Your task to perform on an android device: Open display settings Image 0: 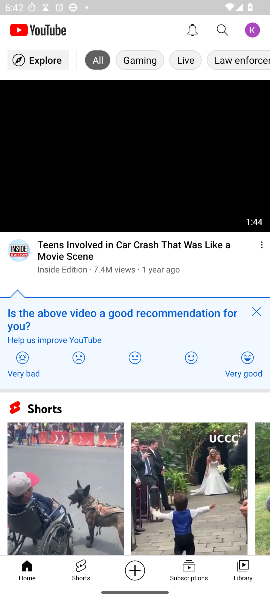
Step 0: press home button
Your task to perform on an android device: Open display settings Image 1: 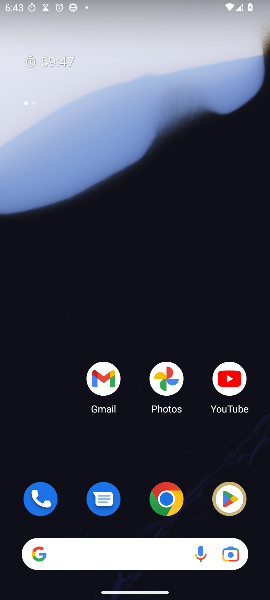
Step 1: drag from (79, 492) to (96, 64)
Your task to perform on an android device: Open display settings Image 2: 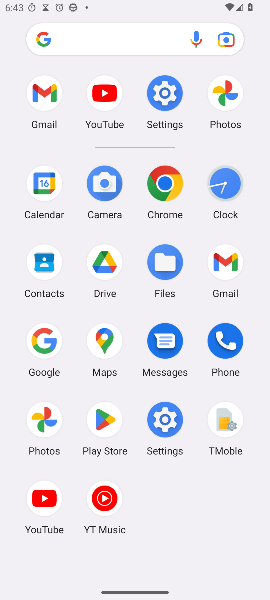
Step 2: click (169, 95)
Your task to perform on an android device: Open display settings Image 3: 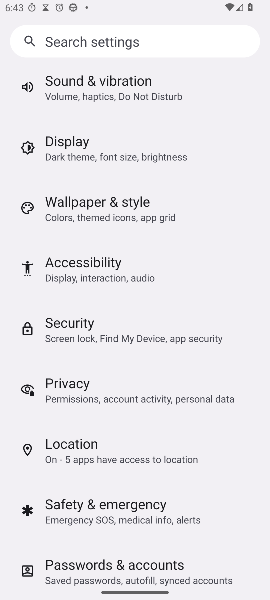
Step 3: click (61, 151)
Your task to perform on an android device: Open display settings Image 4: 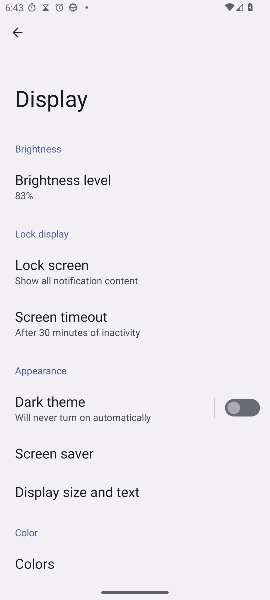
Step 4: task complete